Your task to perform on an android device: What is the news today? Image 0: 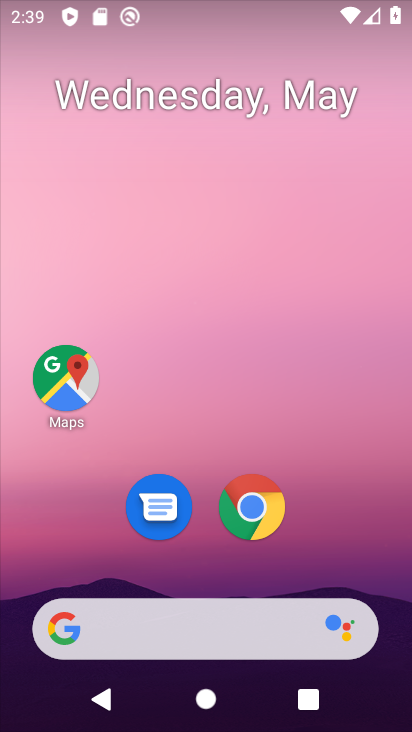
Step 0: drag from (314, 469) to (271, 12)
Your task to perform on an android device: What is the news today? Image 1: 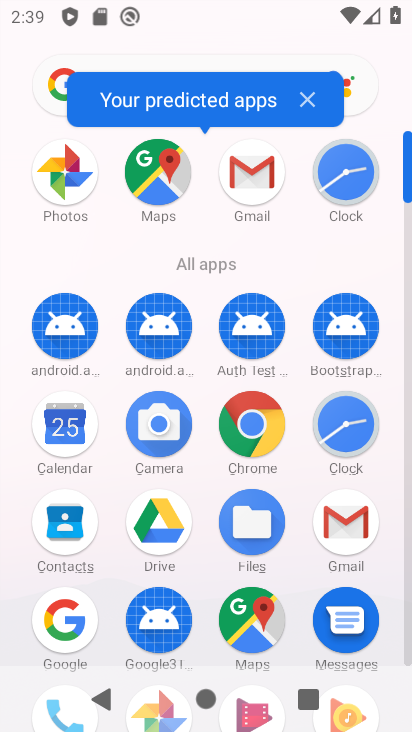
Step 1: drag from (7, 559) to (16, 260)
Your task to perform on an android device: What is the news today? Image 2: 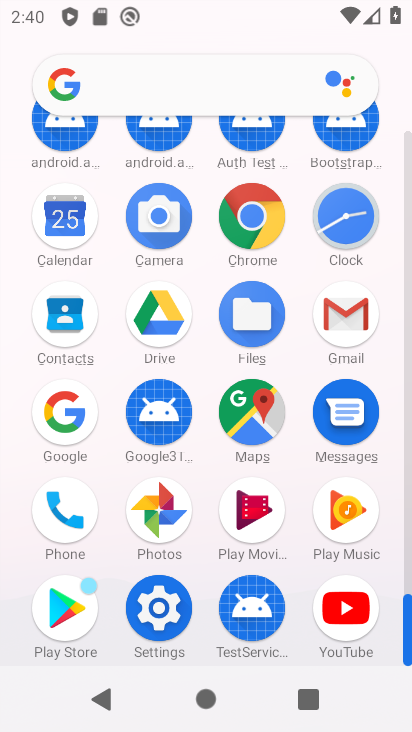
Step 2: click (249, 221)
Your task to perform on an android device: What is the news today? Image 3: 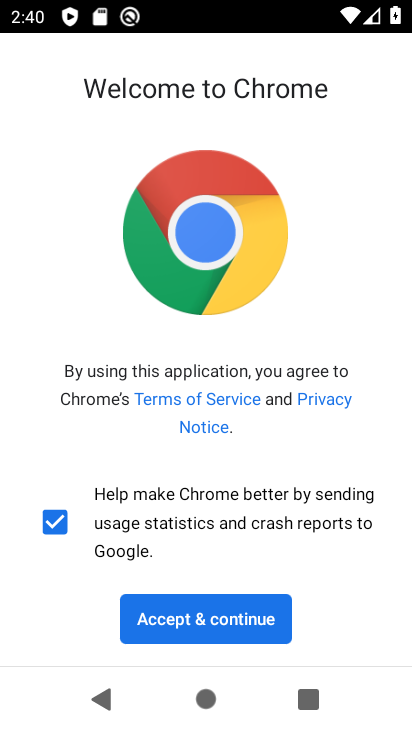
Step 3: click (234, 610)
Your task to perform on an android device: What is the news today? Image 4: 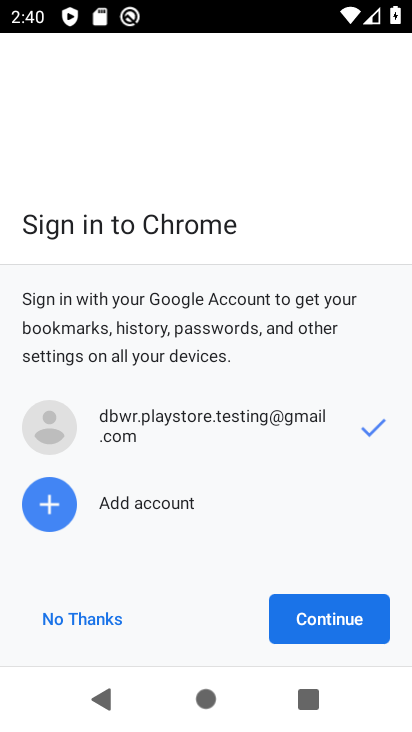
Step 4: click (333, 615)
Your task to perform on an android device: What is the news today? Image 5: 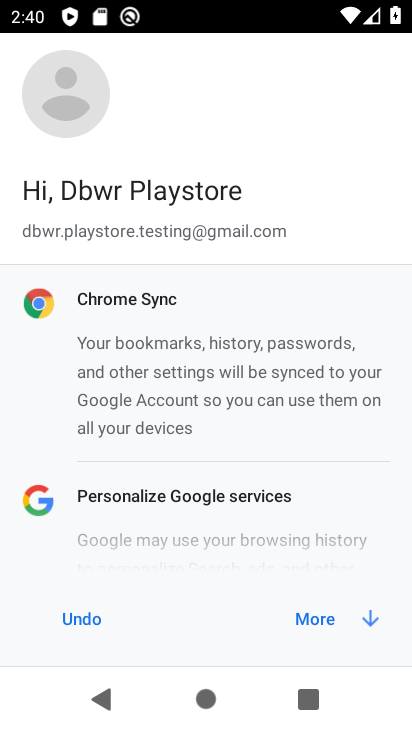
Step 5: click (333, 615)
Your task to perform on an android device: What is the news today? Image 6: 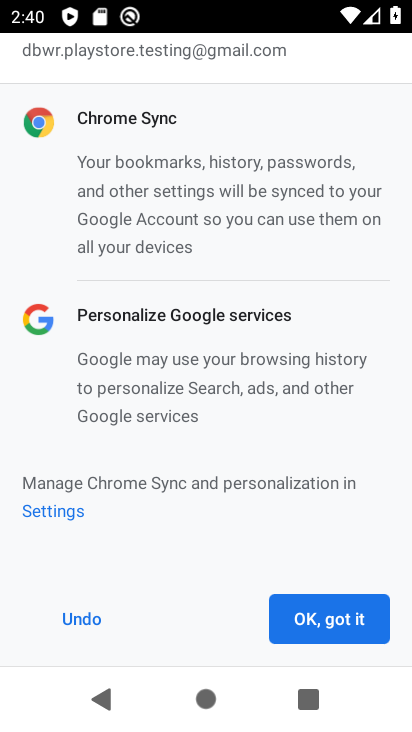
Step 6: click (333, 615)
Your task to perform on an android device: What is the news today? Image 7: 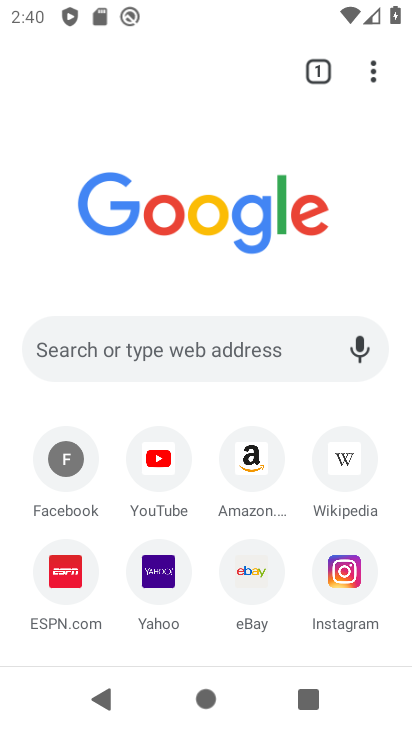
Step 7: click (146, 347)
Your task to perform on an android device: What is the news today? Image 8: 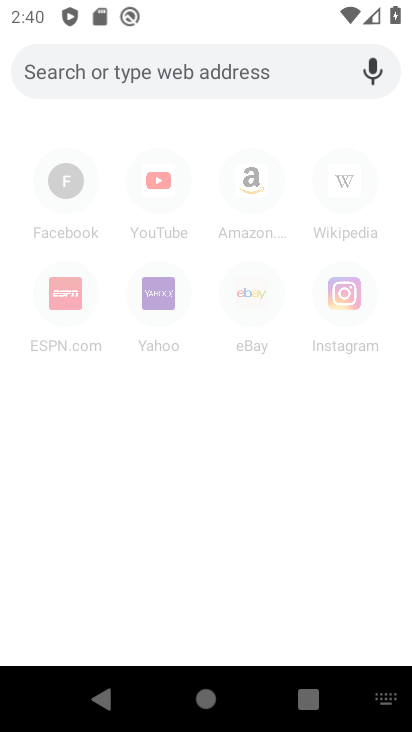
Step 8: type "What is the news today?"
Your task to perform on an android device: What is the news today? Image 9: 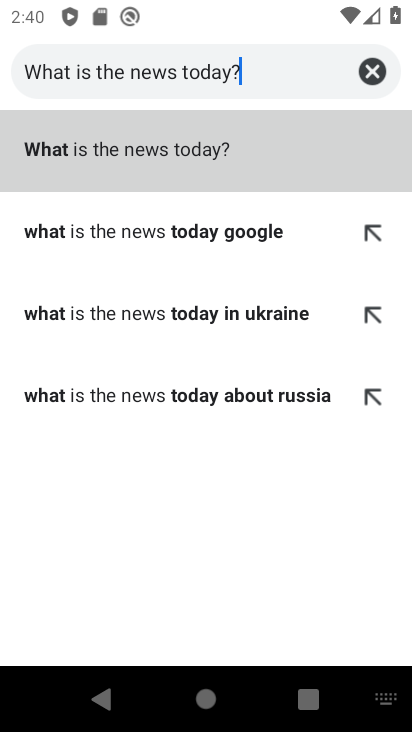
Step 9: type ""
Your task to perform on an android device: What is the news today? Image 10: 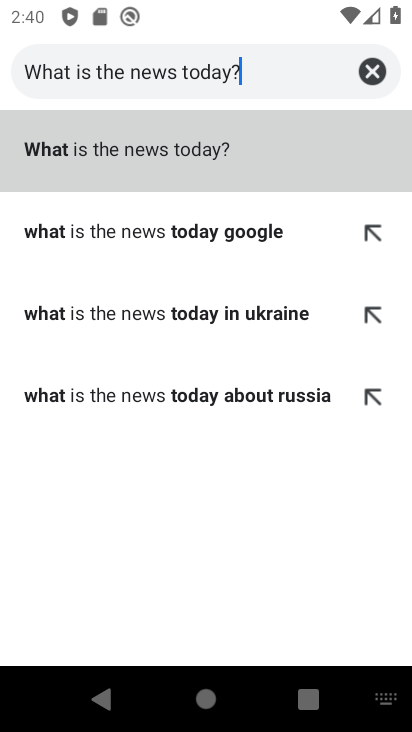
Step 10: click (220, 171)
Your task to perform on an android device: What is the news today? Image 11: 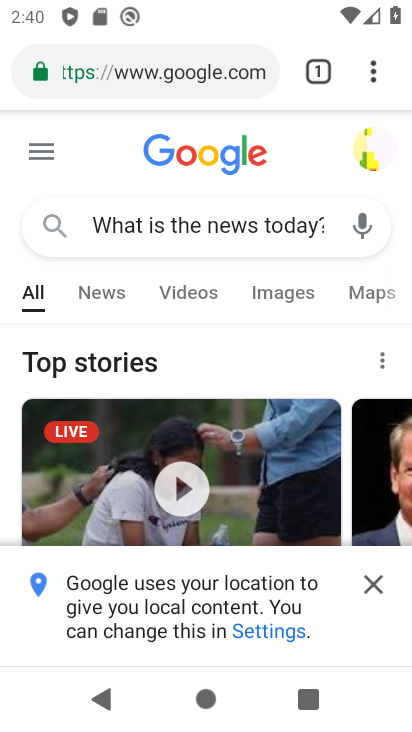
Step 11: task complete